Your task to perform on an android device: Play the last video I watched on Youtube Image 0: 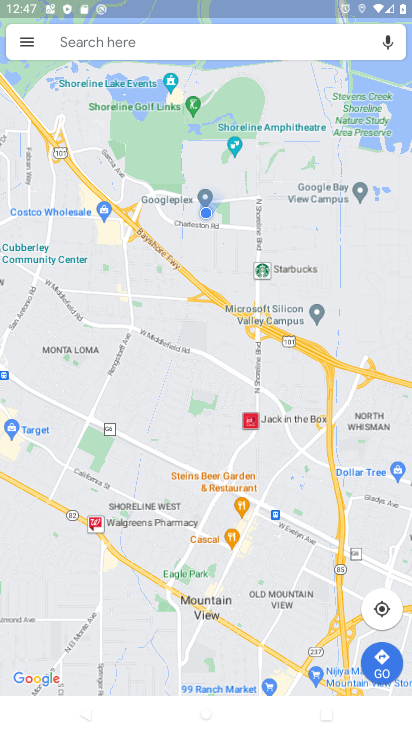
Step 0: press home button
Your task to perform on an android device: Play the last video I watched on Youtube Image 1: 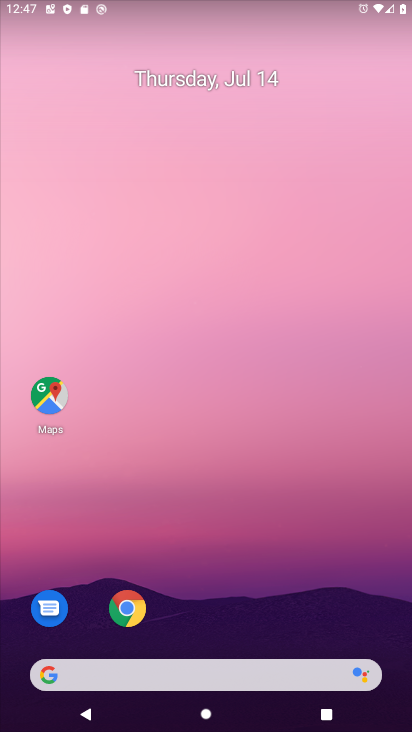
Step 1: drag from (247, 685) to (265, 144)
Your task to perform on an android device: Play the last video I watched on Youtube Image 2: 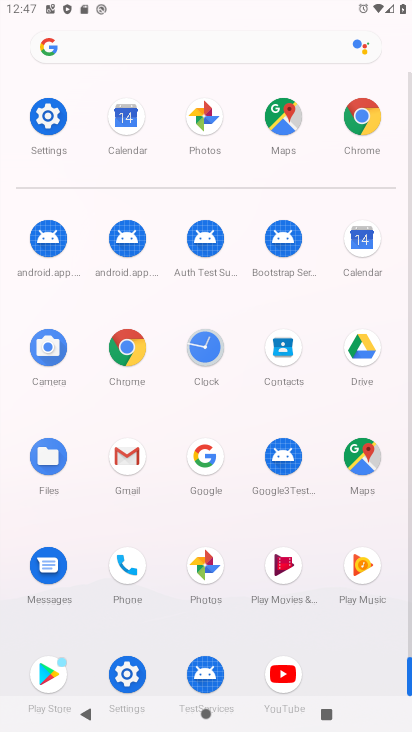
Step 2: click (282, 674)
Your task to perform on an android device: Play the last video I watched on Youtube Image 3: 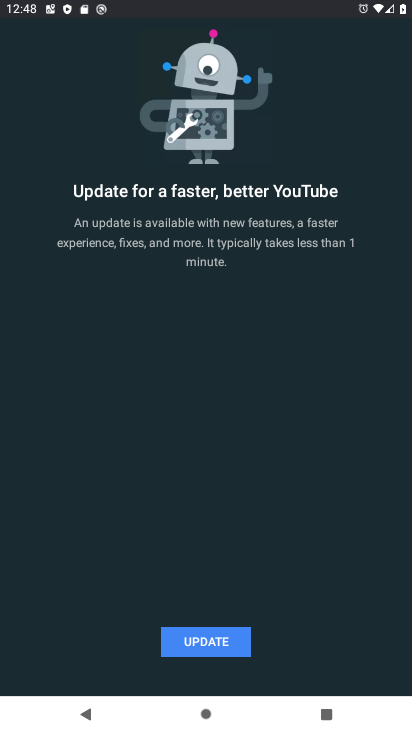
Step 3: click (213, 640)
Your task to perform on an android device: Play the last video I watched on Youtube Image 4: 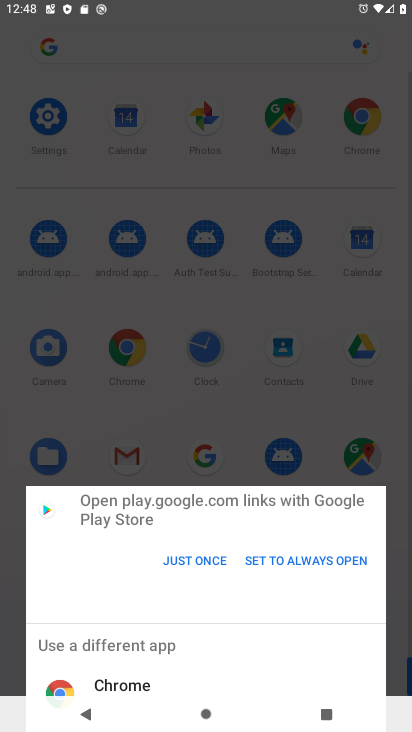
Step 4: click (163, 557)
Your task to perform on an android device: Play the last video I watched on Youtube Image 5: 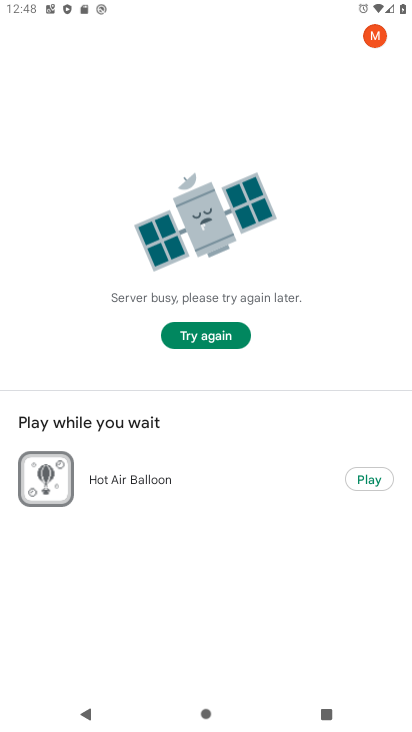
Step 5: click (211, 342)
Your task to perform on an android device: Play the last video I watched on Youtube Image 6: 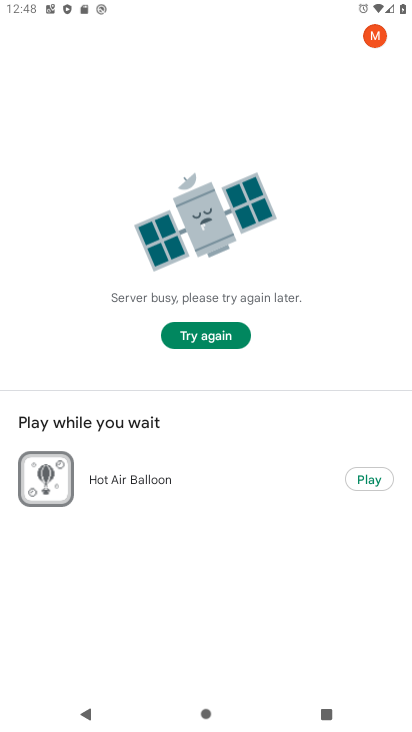
Step 6: task complete